Your task to perform on an android device: Is it going to rain tomorrow? Image 0: 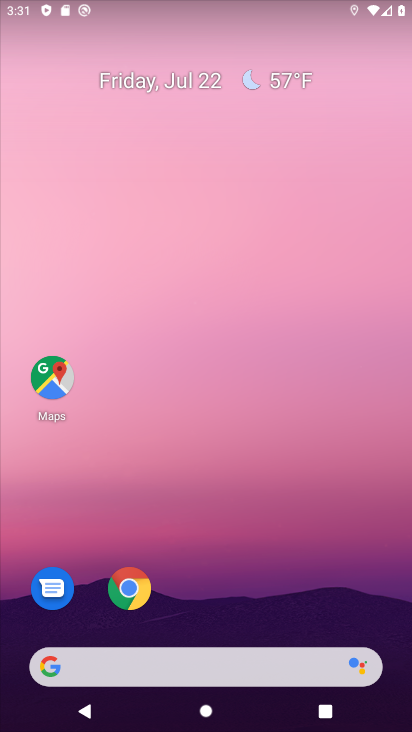
Step 0: click (204, 664)
Your task to perform on an android device: Is it going to rain tomorrow? Image 1: 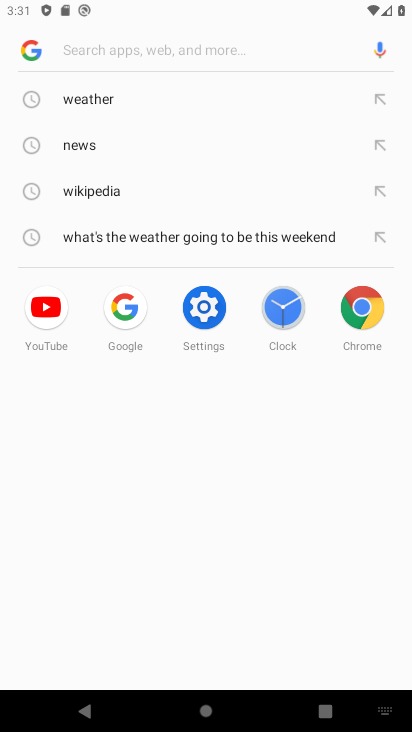
Step 1: click (100, 94)
Your task to perform on an android device: Is it going to rain tomorrow? Image 2: 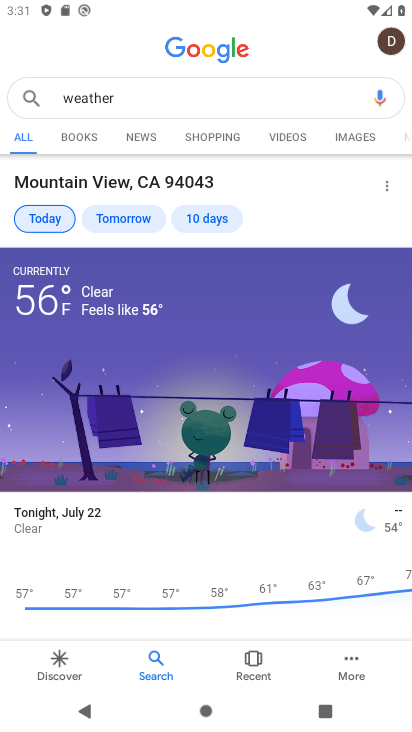
Step 2: click (123, 210)
Your task to perform on an android device: Is it going to rain tomorrow? Image 3: 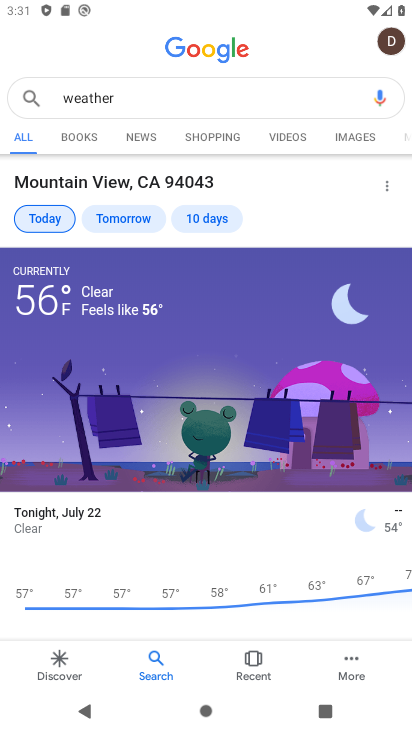
Step 3: click (125, 220)
Your task to perform on an android device: Is it going to rain tomorrow? Image 4: 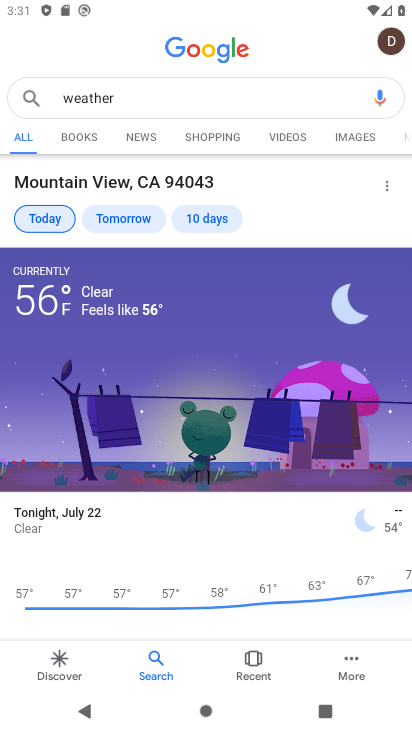
Step 4: task complete